Your task to perform on an android device: Open the Play Movies app and select the watchlist tab. Image 0: 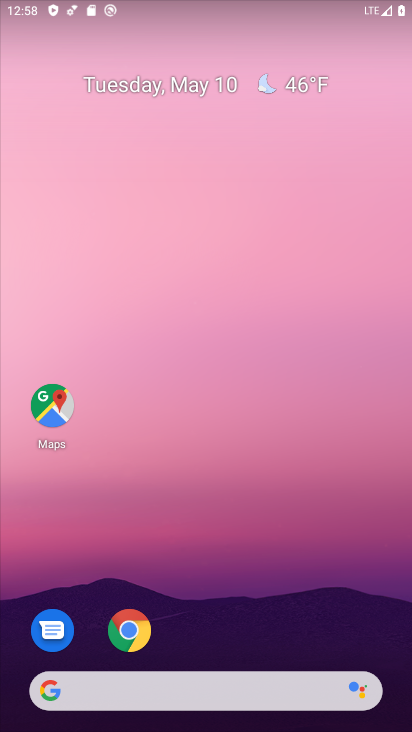
Step 0: drag from (244, 649) to (247, 29)
Your task to perform on an android device: Open the Play Movies app and select the watchlist tab. Image 1: 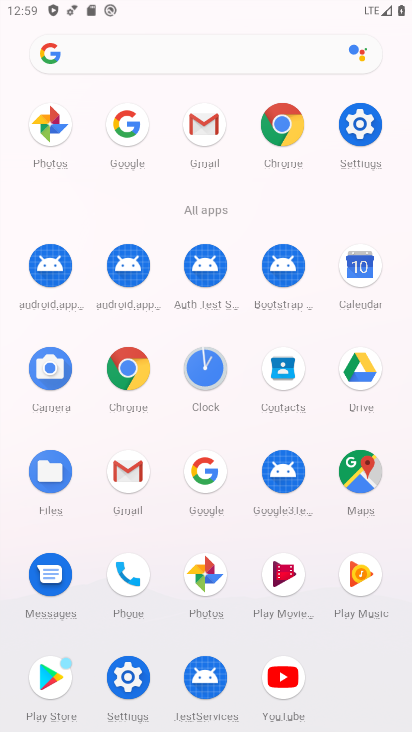
Step 1: click (292, 585)
Your task to perform on an android device: Open the Play Movies app and select the watchlist tab. Image 2: 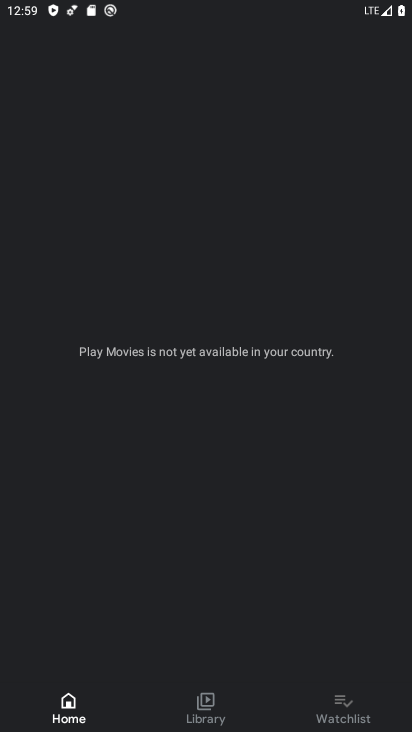
Step 2: click (323, 708)
Your task to perform on an android device: Open the Play Movies app and select the watchlist tab. Image 3: 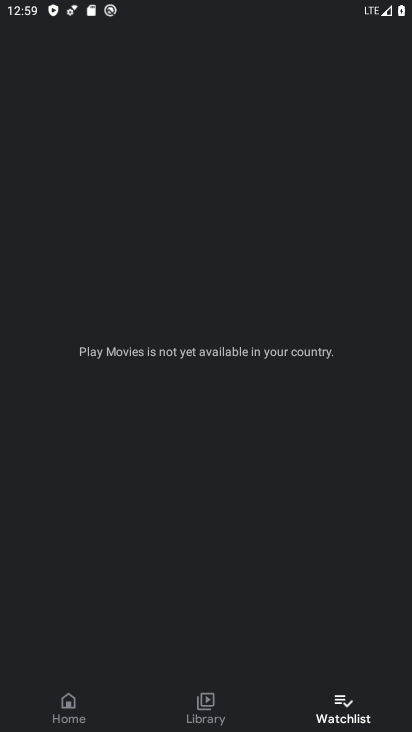
Step 3: task complete